Your task to perform on an android device: Go to Google maps Image 0: 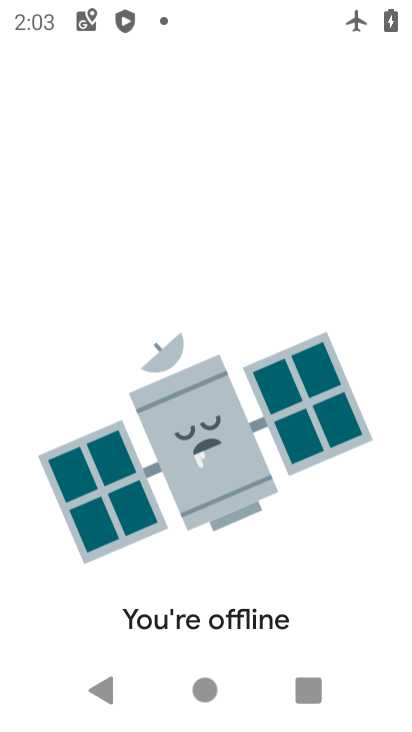
Step 0: press home button
Your task to perform on an android device: Go to Google maps Image 1: 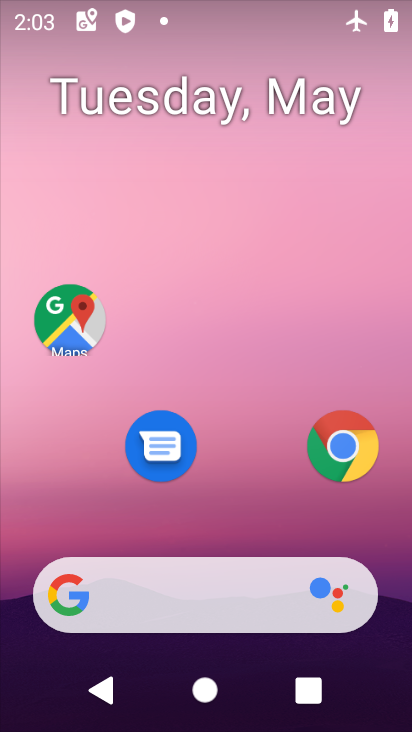
Step 1: drag from (184, 564) to (231, 2)
Your task to perform on an android device: Go to Google maps Image 2: 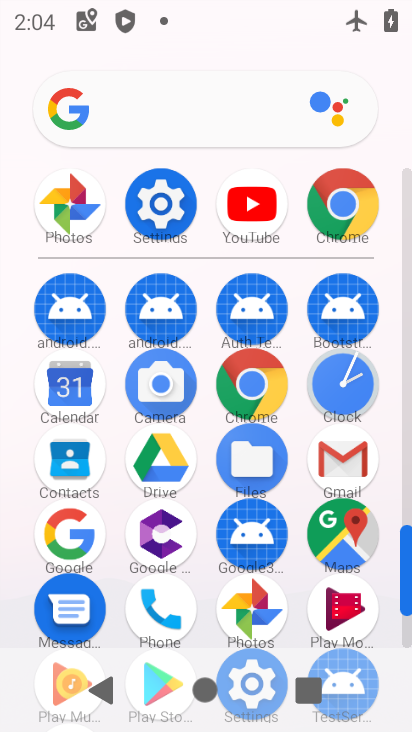
Step 2: click (320, 515)
Your task to perform on an android device: Go to Google maps Image 3: 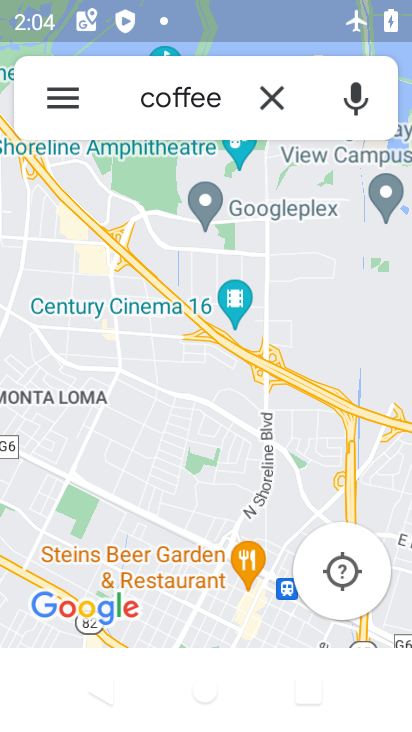
Step 3: task complete